Your task to perform on an android device: Look up the best rated coffee table on Ikea Image 0: 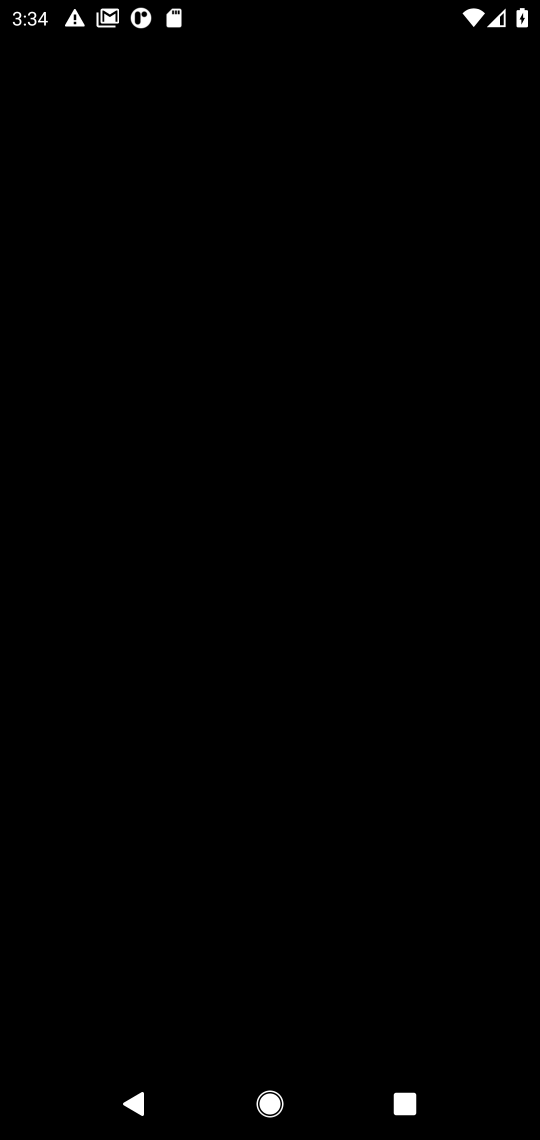
Step 0: press home button
Your task to perform on an android device: Look up the best rated coffee table on Ikea Image 1: 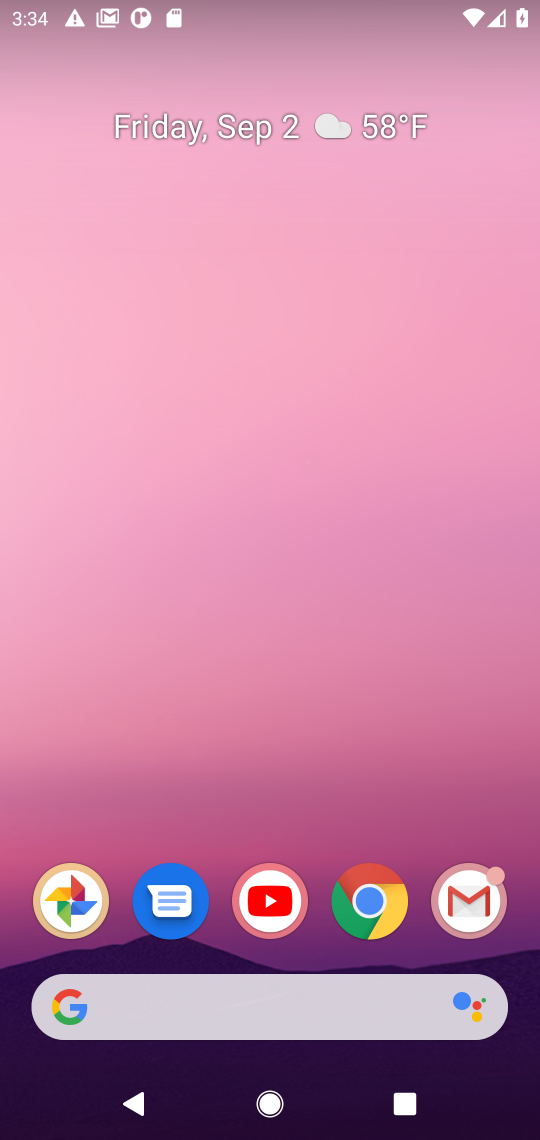
Step 1: press home button
Your task to perform on an android device: Look up the best rated coffee table on Ikea Image 2: 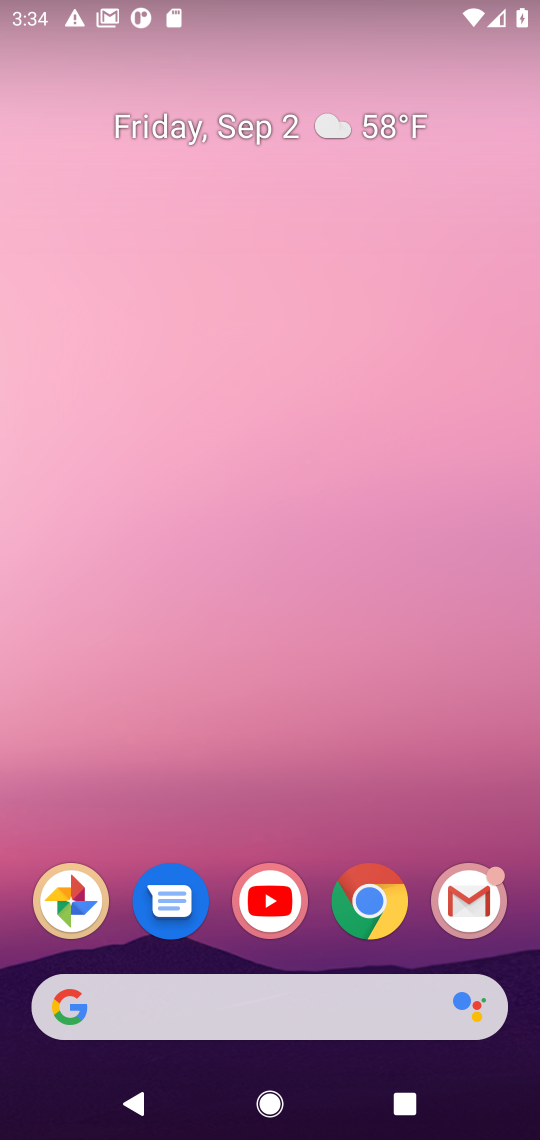
Step 2: drag from (308, 965) to (342, 308)
Your task to perform on an android device: Look up the best rated coffee table on Ikea Image 3: 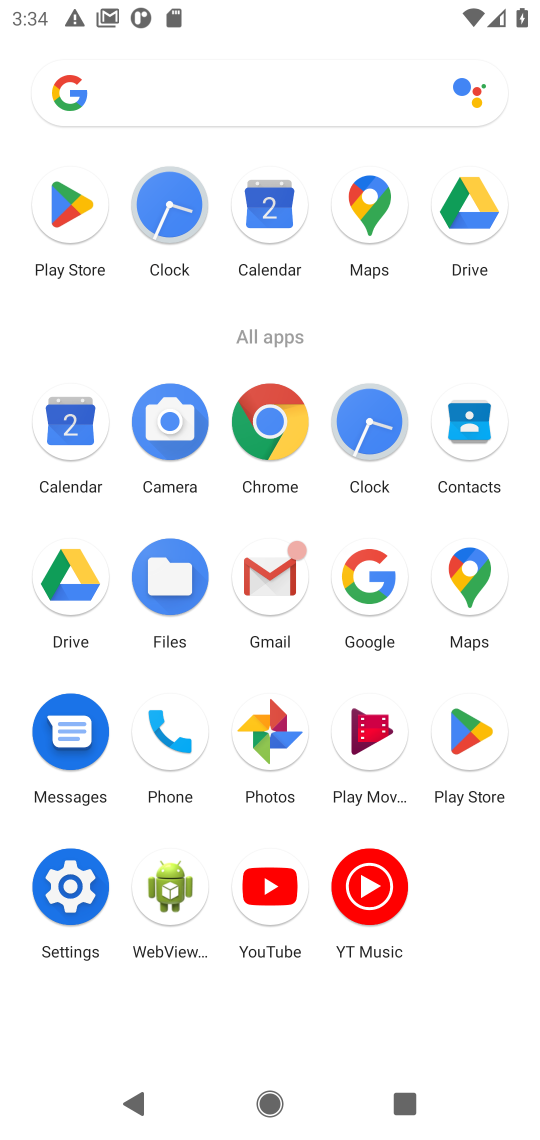
Step 3: click (274, 428)
Your task to perform on an android device: Look up the best rated coffee table on Ikea Image 4: 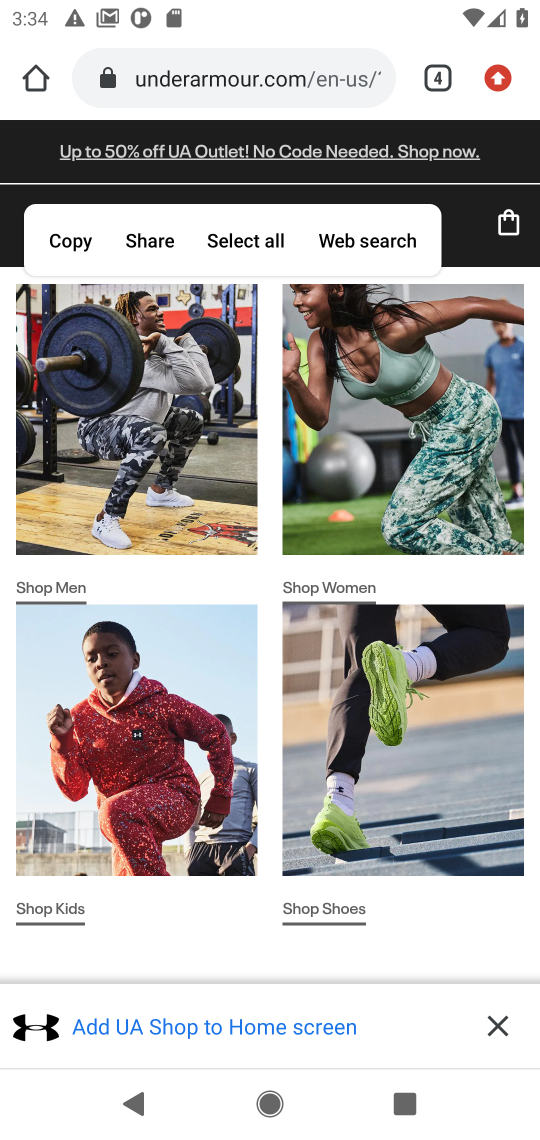
Step 4: click (279, 73)
Your task to perform on an android device: Look up the best rated coffee table on Ikea Image 5: 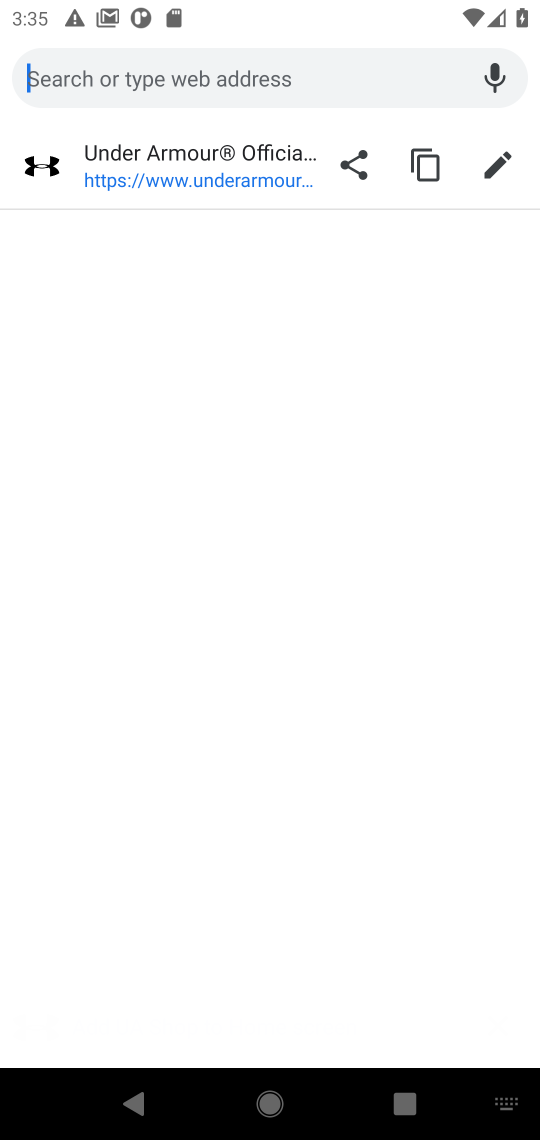
Step 5: type "best rated coffee table on Ikea"
Your task to perform on an android device: Look up the best rated coffee table on Ikea Image 6: 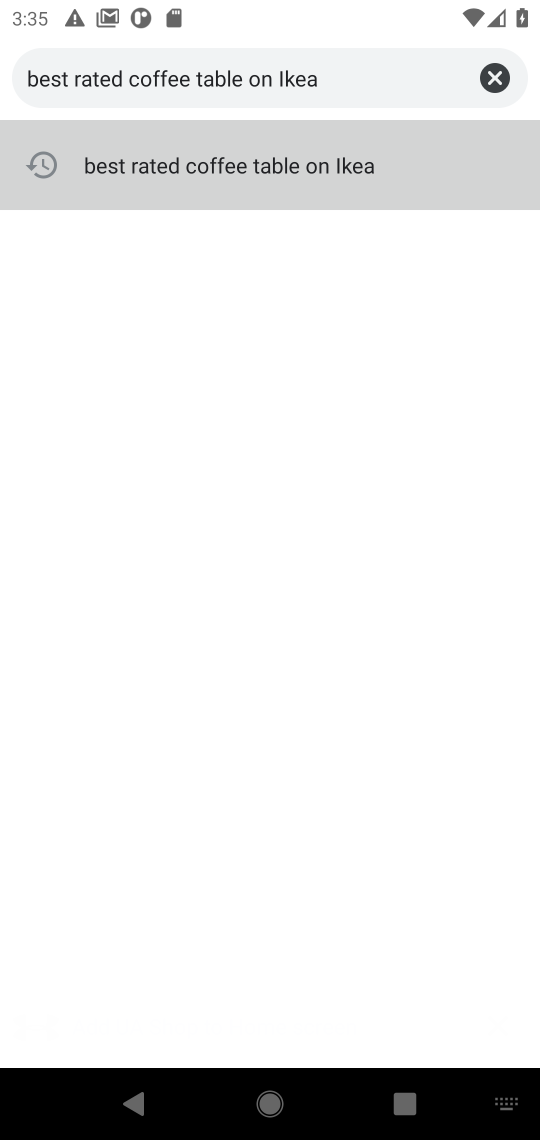
Step 6: press enter
Your task to perform on an android device: Look up the best rated coffee table on Ikea Image 7: 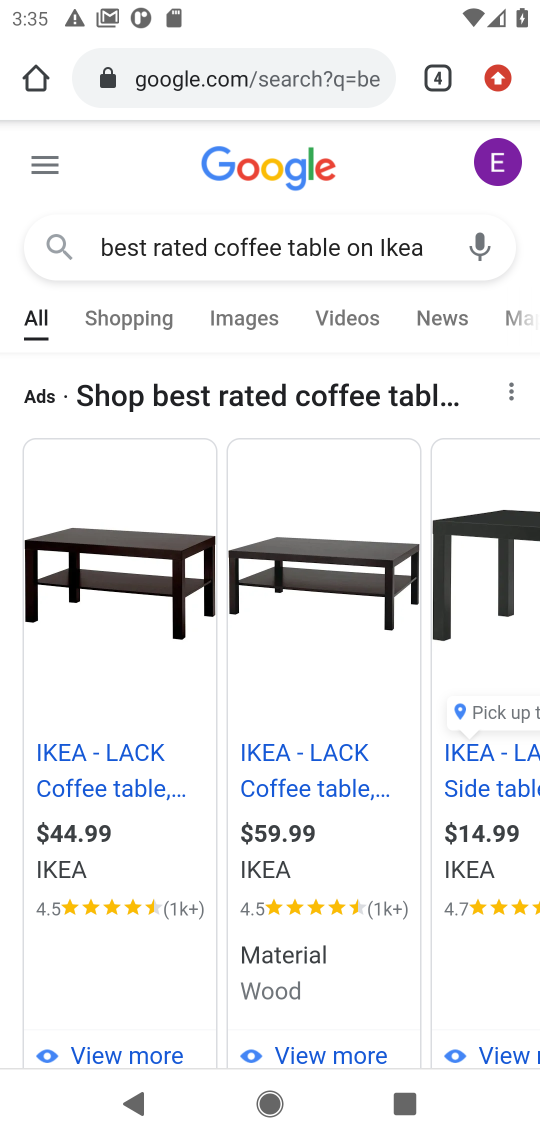
Step 7: drag from (280, 669) to (352, 55)
Your task to perform on an android device: Look up the best rated coffee table on Ikea Image 8: 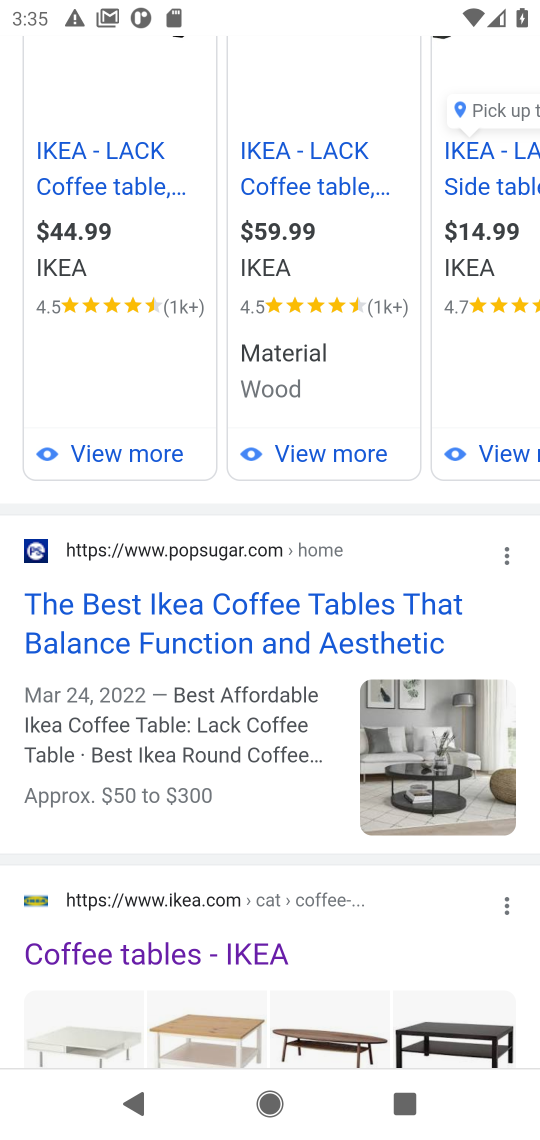
Step 8: drag from (351, 787) to (376, 349)
Your task to perform on an android device: Look up the best rated coffee table on Ikea Image 9: 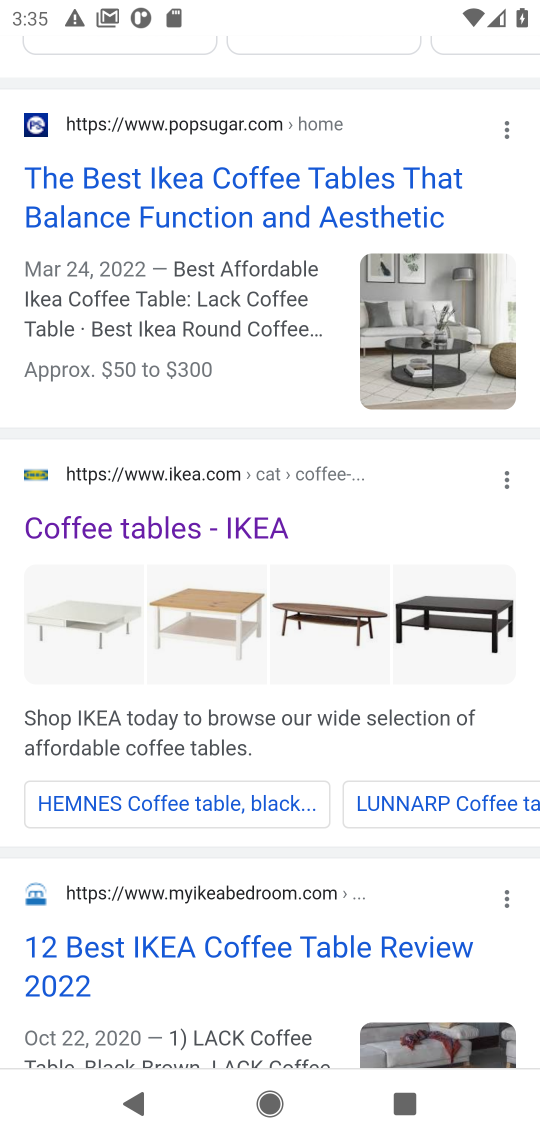
Step 9: click (212, 497)
Your task to perform on an android device: Look up the best rated coffee table on Ikea Image 10: 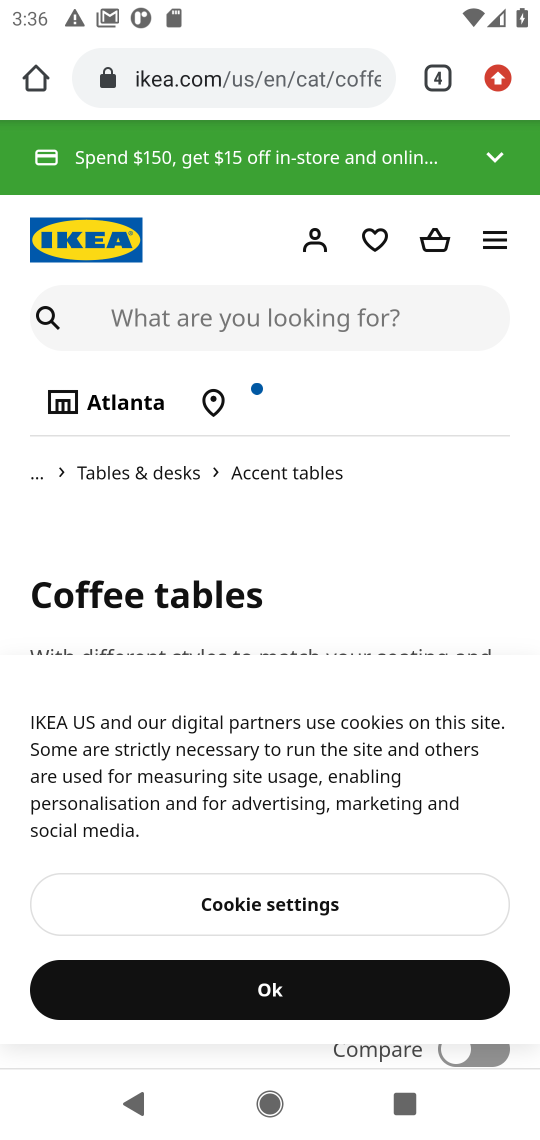
Step 10: task complete